Your task to perform on an android device: turn on airplane mode Image 0: 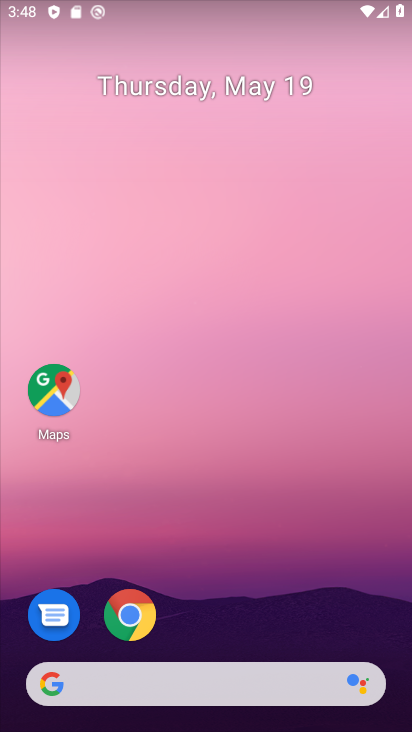
Step 0: drag from (248, 630) to (328, 0)
Your task to perform on an android device: turn on airplane mode Image 1: 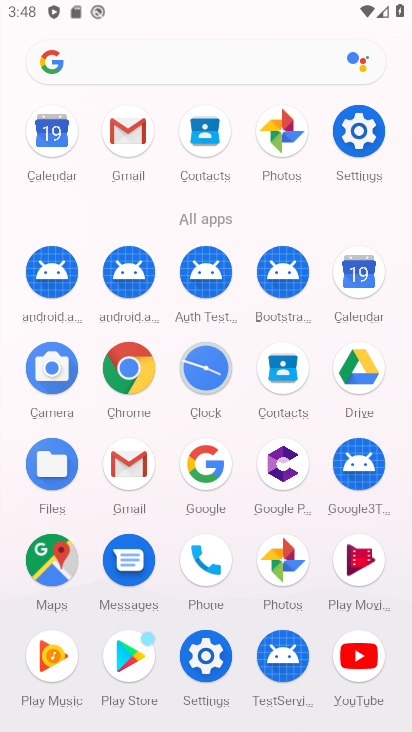
Step 1: click (352, 123)
Your task to perform on an android device: turn on airplane mode Image 2: 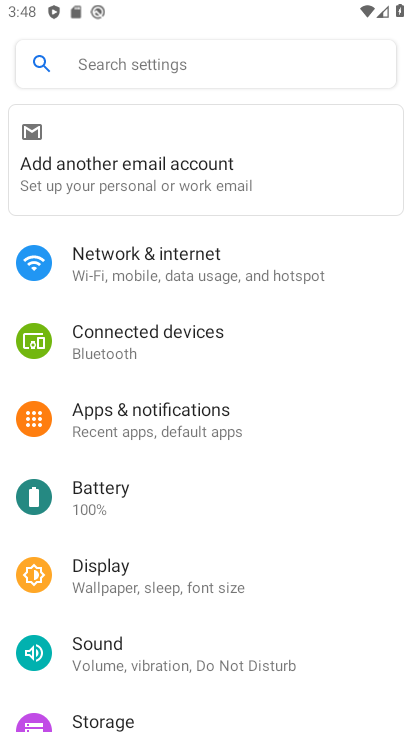
Step 2: click (148, 263)
Your task to perform on an android device: turn on airplane mode Image 3: 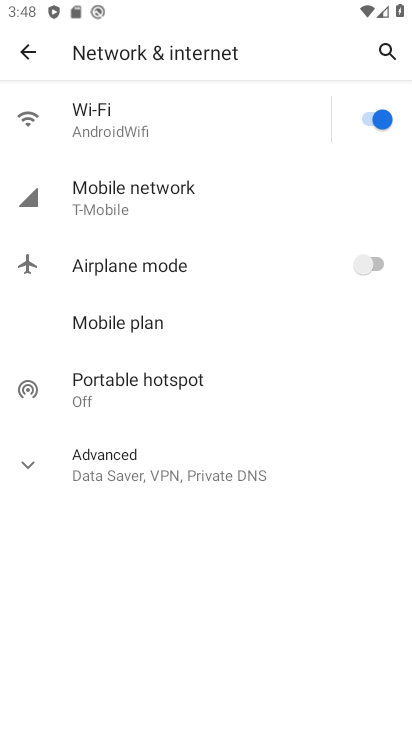
Step 3: click (366, 267)
Your task to perform on an android device: turn on airplane mode Image 4: 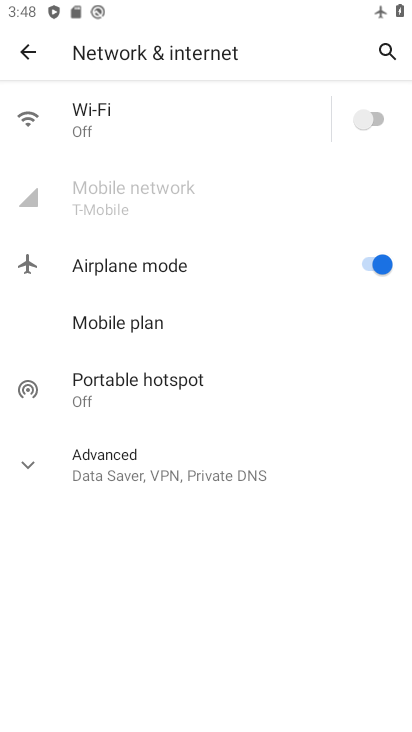
Step 4: task complete